Your task to perform on an android device: Check the weather Image 0: 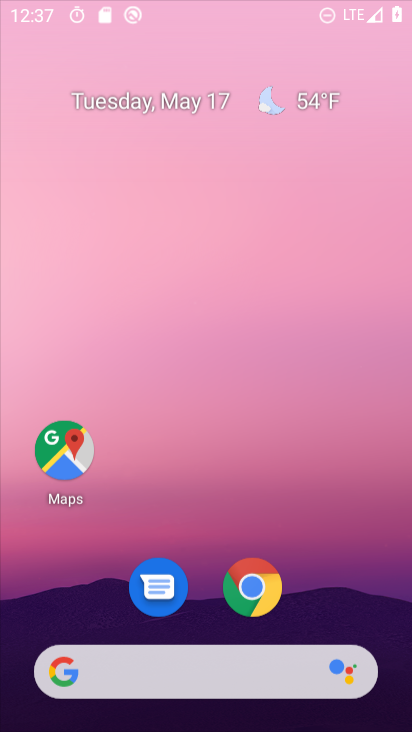
Step 0: click (253, 67)
Your task to perform on an android device: Check the weather Image 1: 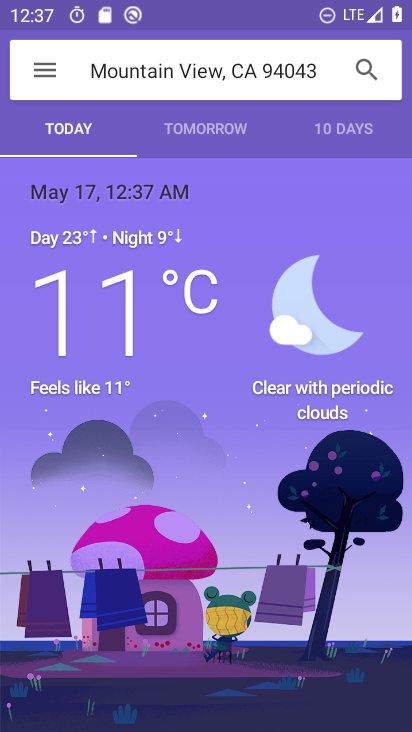
Step 1: press home button
Your task to perform on an android device: Check the weather Image 2: 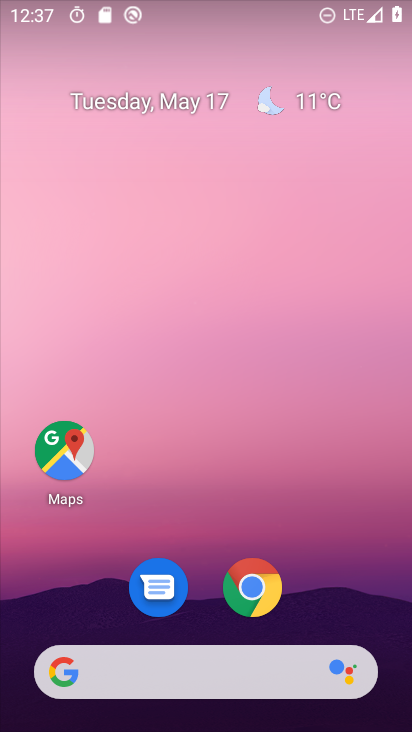
Step 2: drag from (190, 617) to (242, 88)
Your task to perform on an android device: Check the weather Image 3: 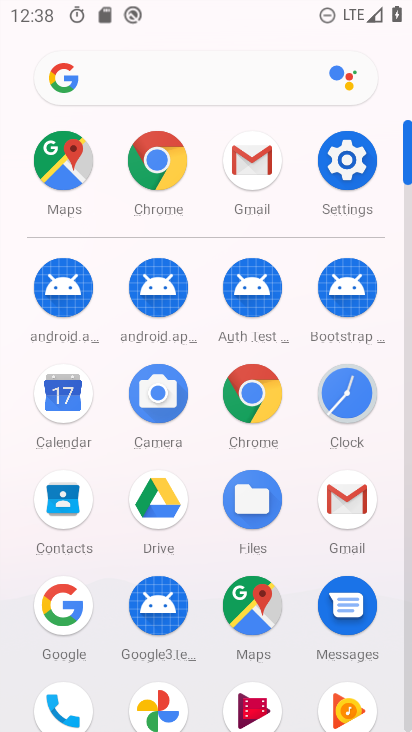
Step 3: click (219, 69)
Your task to perform on an android device: Check the weather Image 4: 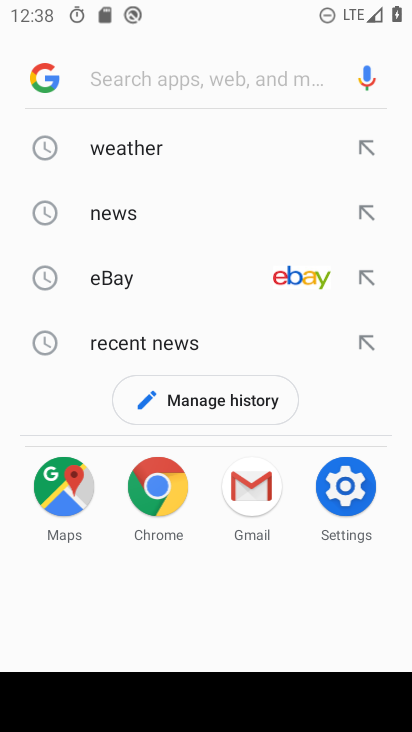
Step 4: click (116, 163)
Your task to perform on an android device: Check the weather Image 5: 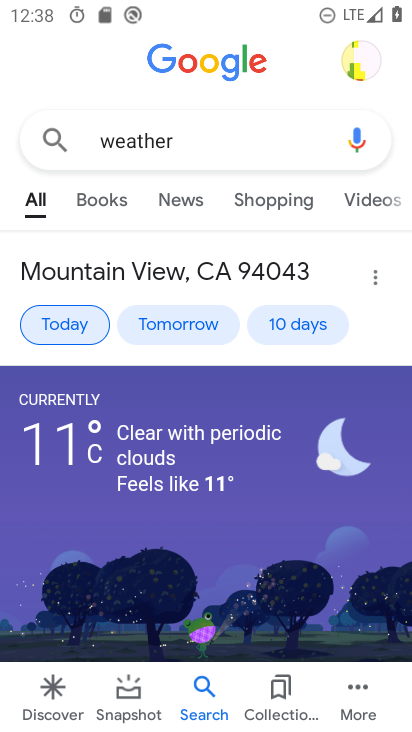
Step 5: task complete